Your task to perform on an android device: read, delete, or share a saved page in the chrome app Image 0: 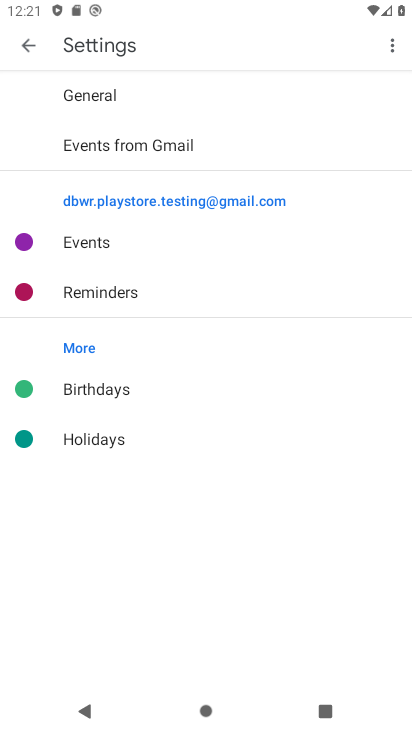
Step 0: press back button
Your task to perform on an android device: read, delete, or share a saved page in the chrome app Image 1: 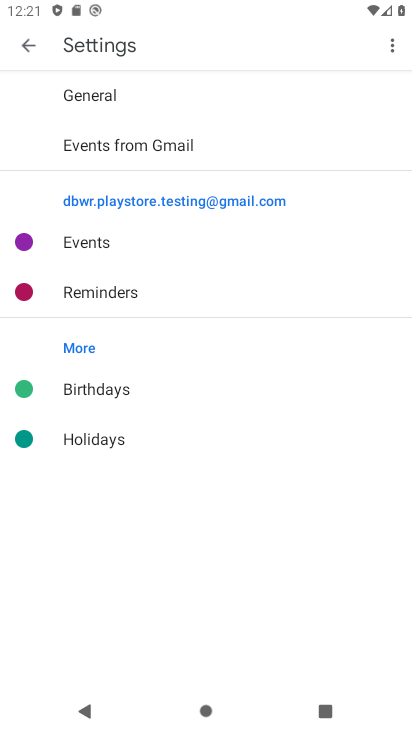
Step 1: click (403, 365)
Your task to perform on an android device: read, delete, or share a saved page in the chrome app Image 2: 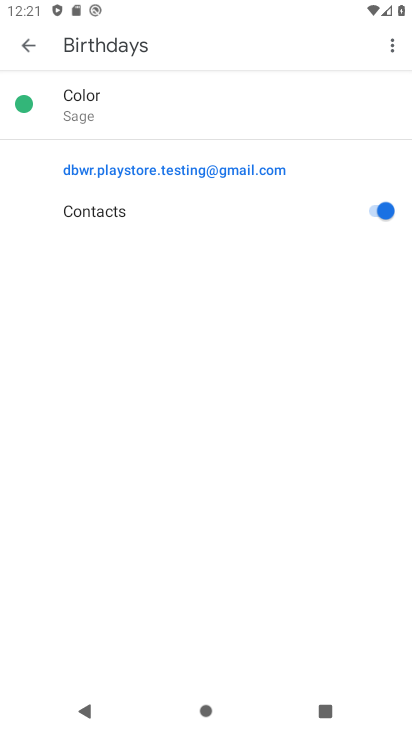
Step 2: press home button
Your task to perform on an android device: read, delete, or share a saved page in the chrome app Image 3: 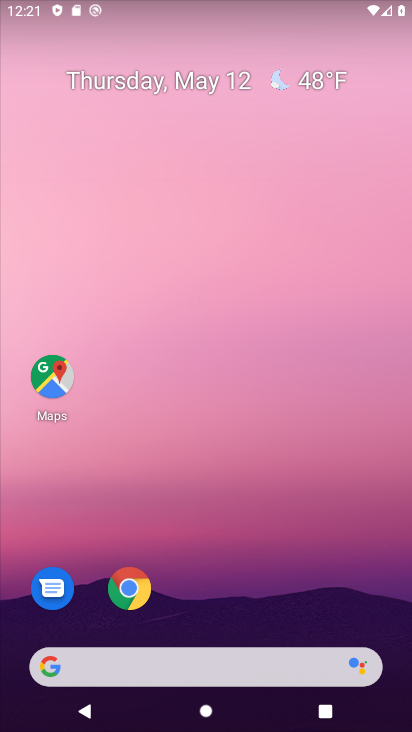
Step 3: drag from (338, 590) to (103, 5)
Your task to perform on an android device: read, delete, or share a saved page in the chrome app Image 4: 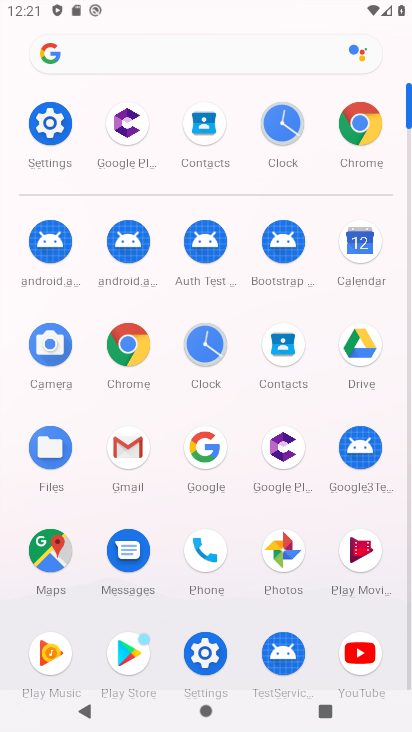
Step 4: click (367, 122)
Your task to perform on an android device: read, delete, or share a saved page in the chrome app Image 5: 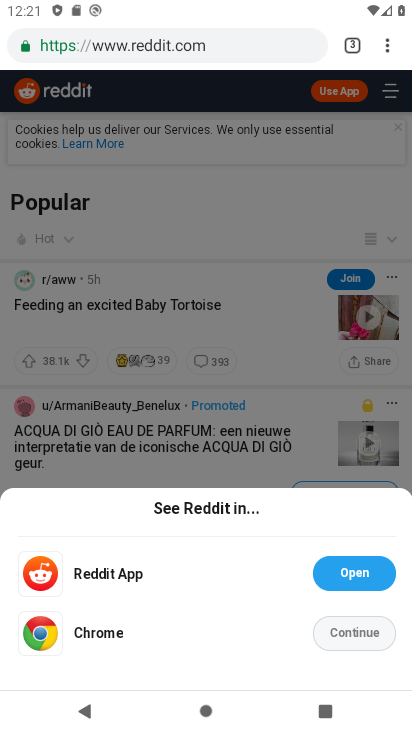
Step 5: drag from (386, 37) to (270, 295)
Your task to perform on an android device: read, delete, or share a saved page in the chrome app Image 6: 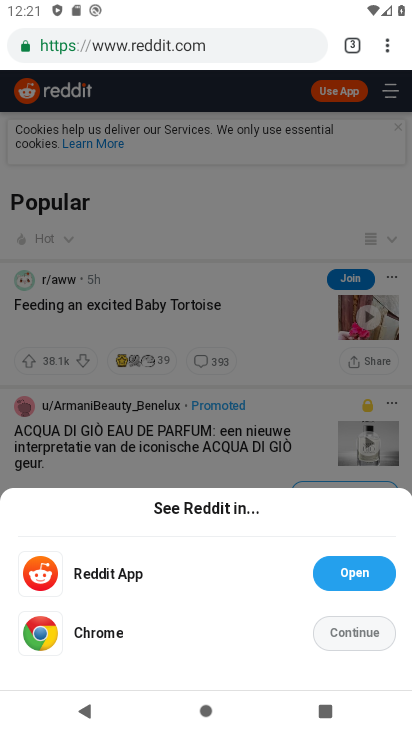
Step 6: click (270, 278)
Your task to perform on an android device: read, delete, or share a saved page in the chrome app Image 7: 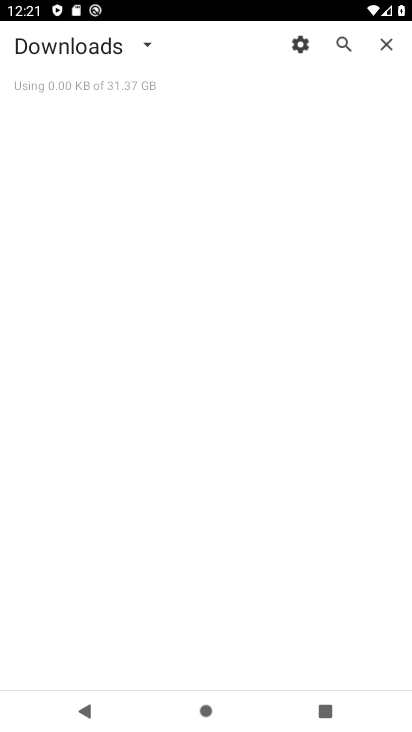
Step 7: click (144, 45)
Your task to perform on an android device: read, delete, or share a saved page in the chrome app Image 8: 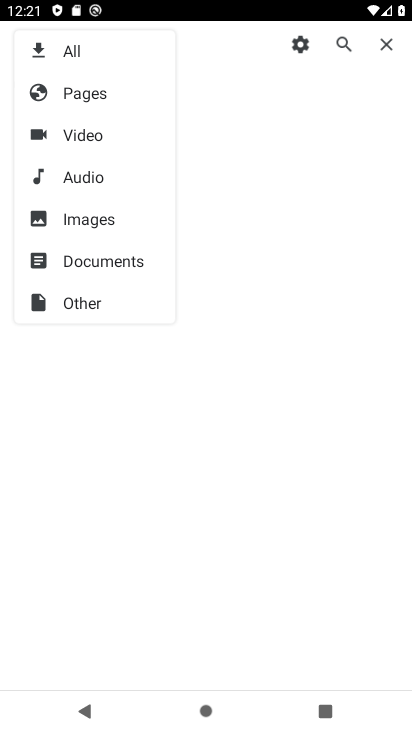
Step 8: click (106, 316)
Your task to perform on an android device: read, delete, or share a saved page in the chrome app Image 9: 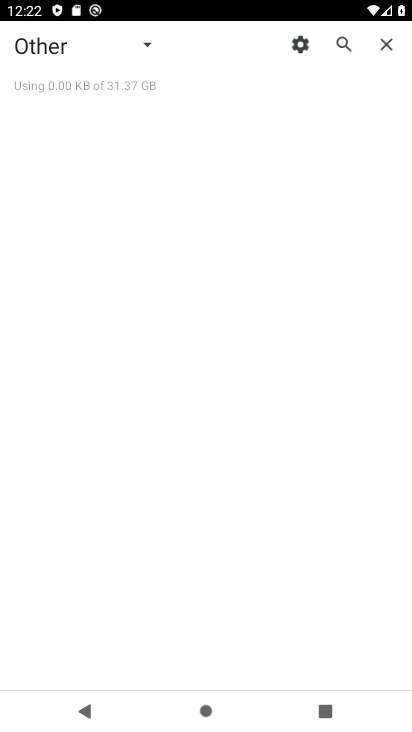
Step 9: click (148, 39)
Your task to perform on an android device: read, delete, or share a saved page in the chrome app Image 10: 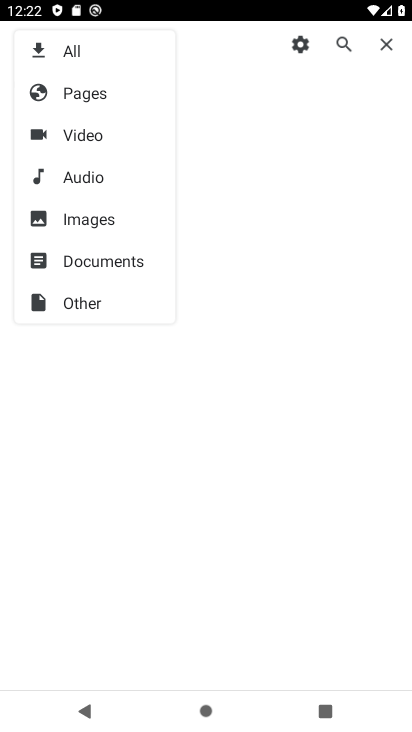
Step 10: click (81, 86)
Your task to perform on an android device: read, delete, or share a saved page in the chrome app Image 11: 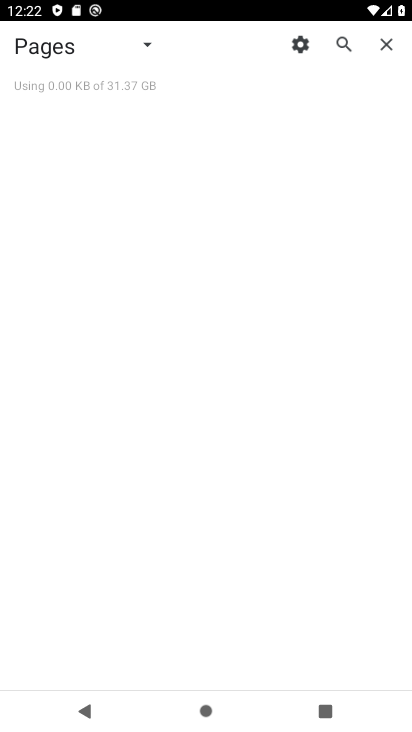
Step 11: click (137, 44)
Your task to perform on an android device: read, delete, or share a saved page in the chrome app Image 12: 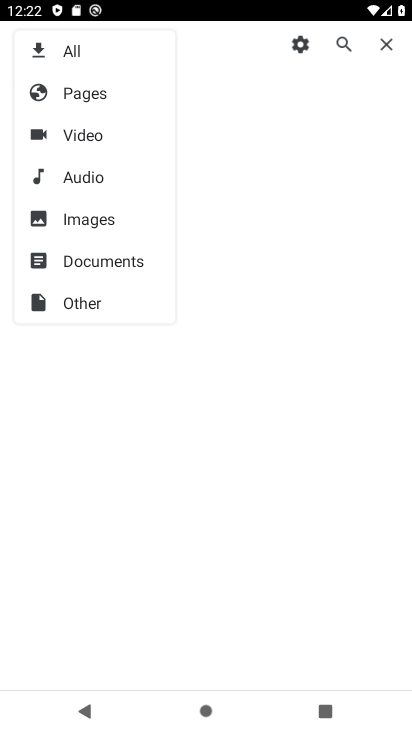
Step 12: click (70, 94)
Your task to perform on an android device: read, delete, or share a saved page in the chrome app Image 13: 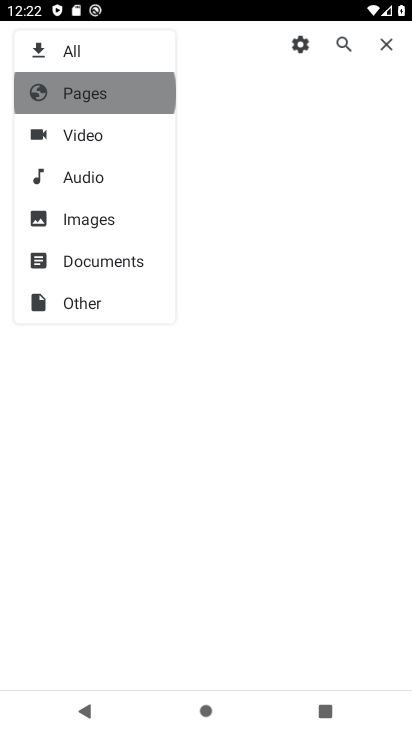
Step 13: click (71, 94)
Your task to perform on an android device: read, delete, or share a saved page in the chrome app Image 14: 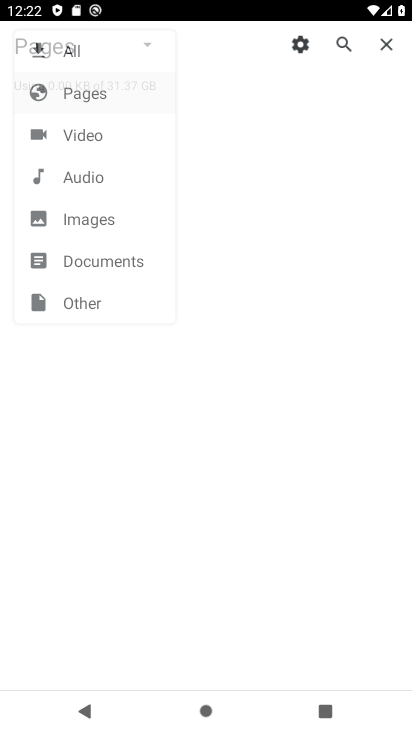
Step 14: click (71, 94)
Your task to perform on an android device: read, delete, or share a saved page in the chrome app Image 15: 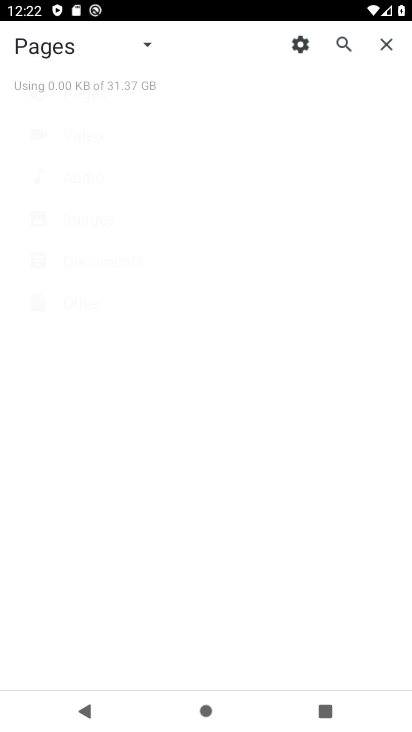
Step 15: click (71, 94)
Your task to perform on an android device: read, delete, or share a saved page in the chrome app Image 16: 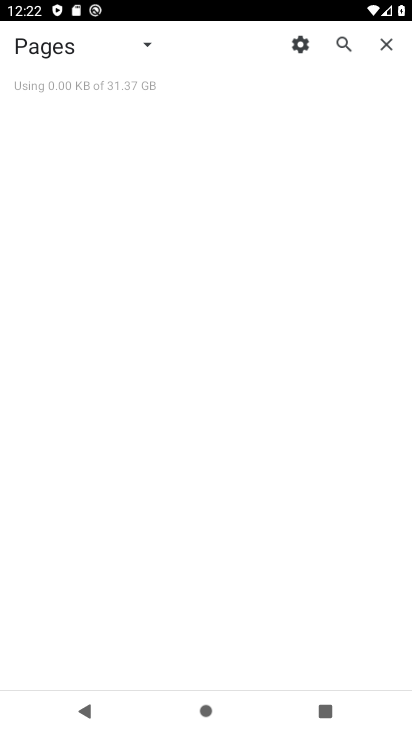
Step 16: task complete